Your task to perform on an android device: Open Amazon Image 0: 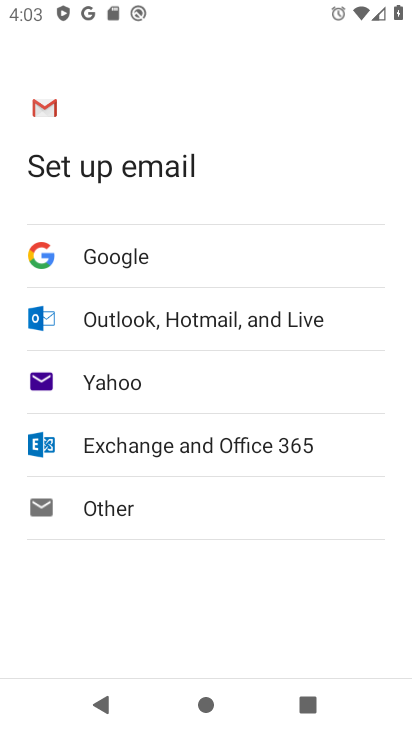
Step 0: press home button
Your task to perform on an android device: Open Amazon Image 1: 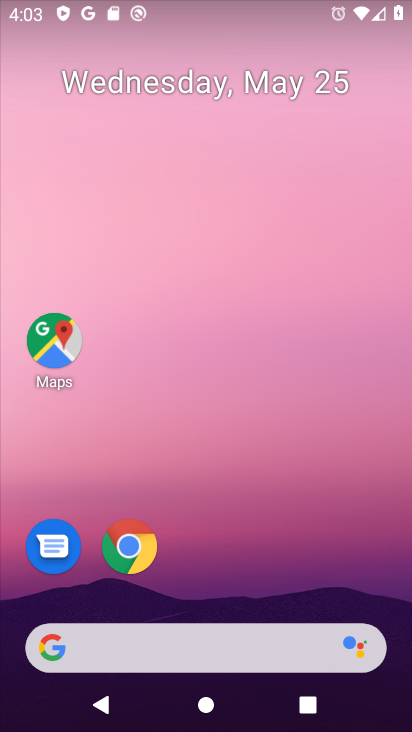
Step 1: click (137, 547)
Your task to perform on an android device: Open Amazon Image 2: 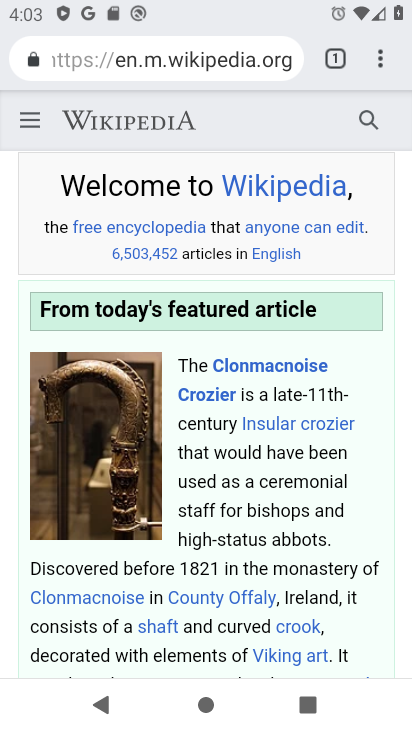
Step 2: click (154, 42)
Your task to perform on an android device: Open Amazon Image 3: 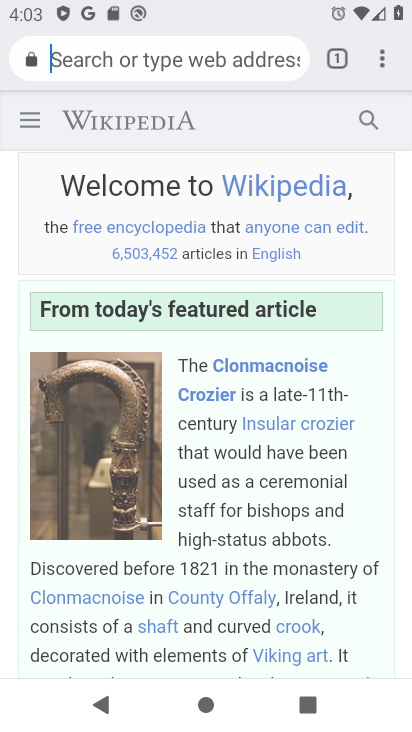
Step 3: click (159, 50)
Your task to perform on an android device: Open Amazon Image 4: 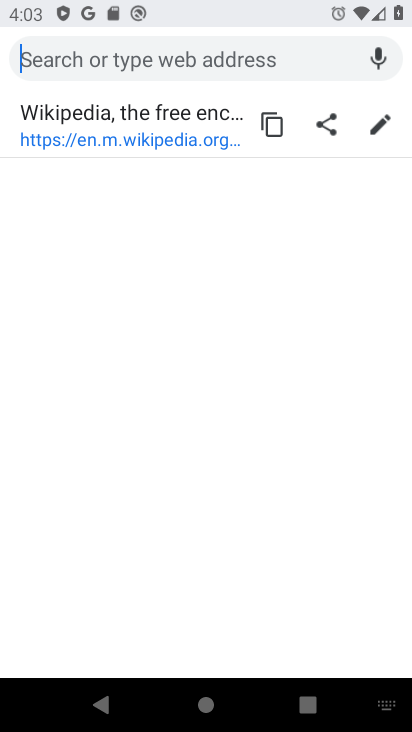
Step 4: type "amazon"
Your task to perform on an android device: Open Amazon Image 5: 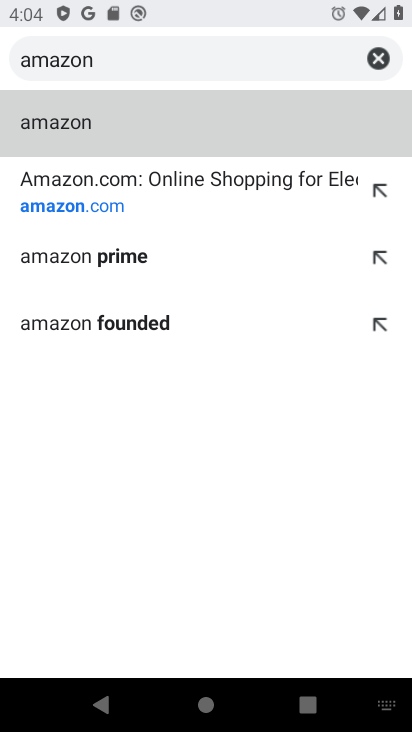
Step 5: click (64, 124)
Your task to perform on an android device: Open Amazon Image 6: 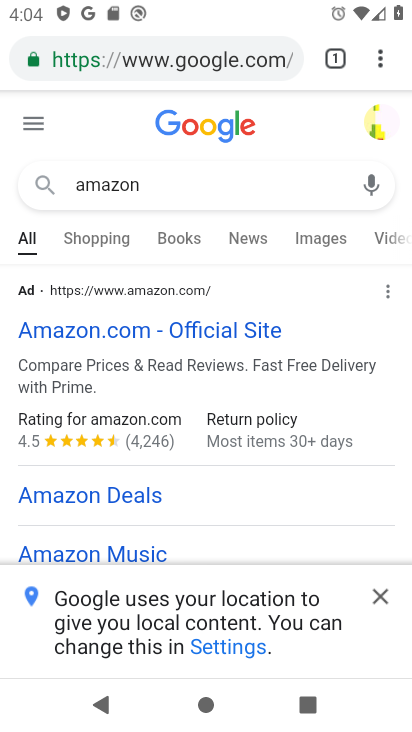
Step 6: click (109, 326)
Your task to perform on an android device: Open Amazon Image 7: 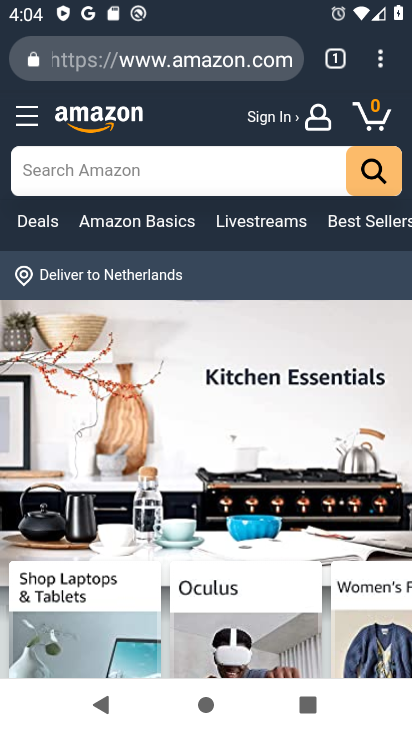
Step 7: task complete